Your task to perform on an android device: turn off location Image 0: 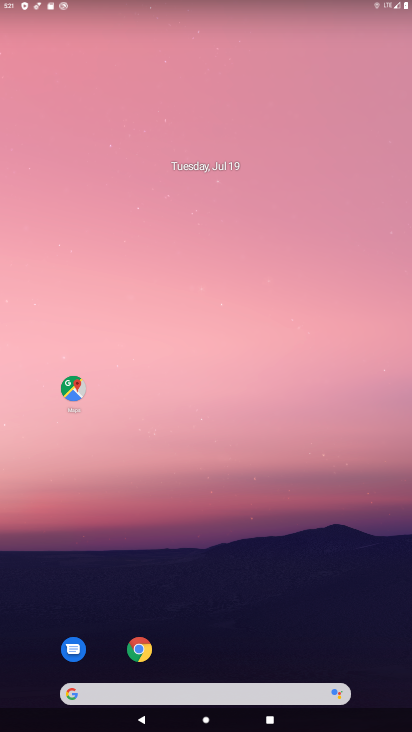
Step 0: drag from (252, 609) to (202, 130)
Your task to perform on an android device: turn off location Image 1: 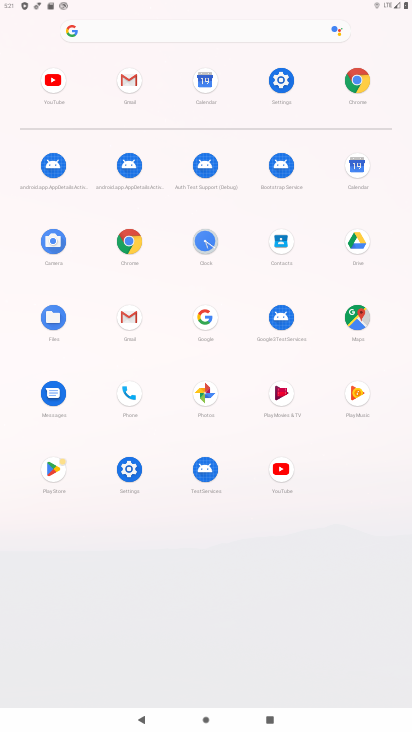
Step 1: click (276, 78)
Your task to perform on an android device: turn off location Image 2: 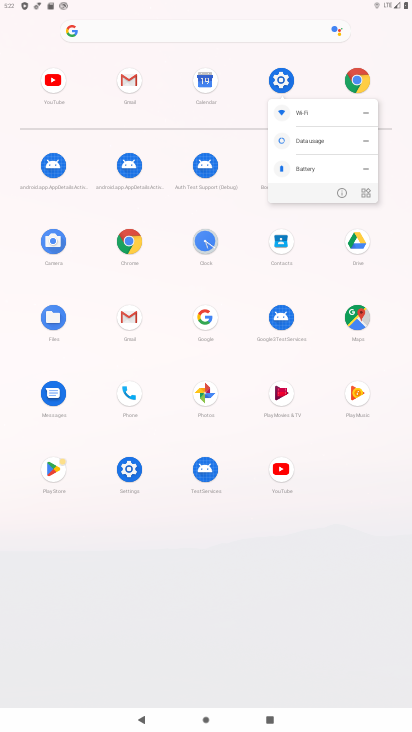
Step 2: click (274, 77)
Your task to perform on an android device: turn off location Image 3: 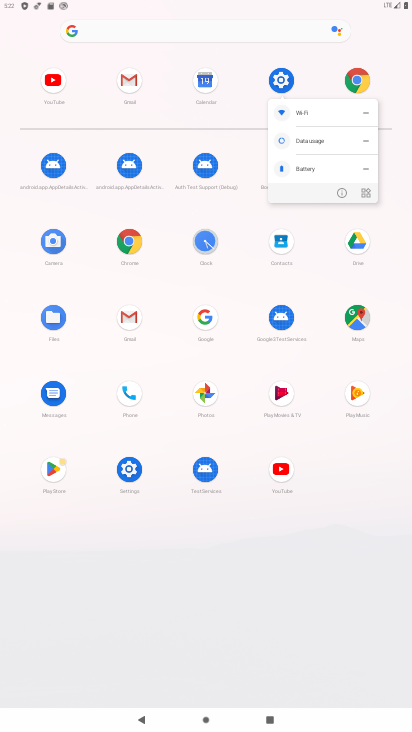
Step 3: click (277, 72)
Your task to perform on an android device: turn off location Image 4: 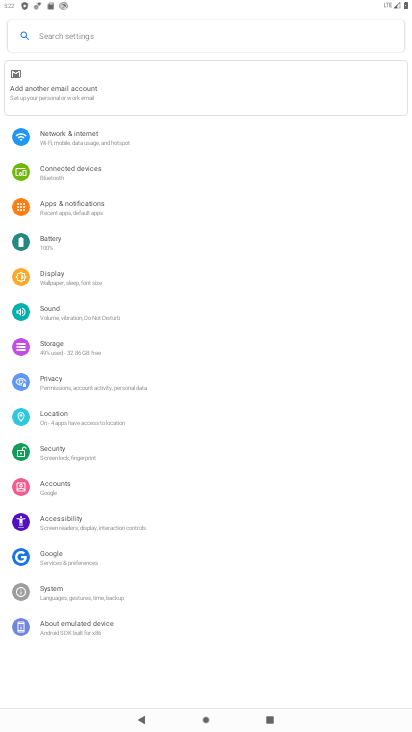
Step 4: click (89, 417)
Your task to perform on an android device: turn off location Image 5: 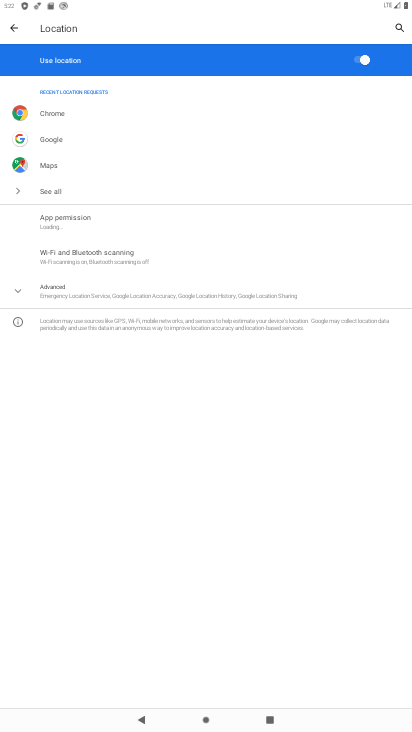
Step 5: click (362, 59)
Your task to perform on an android device: turn off location Image 6: 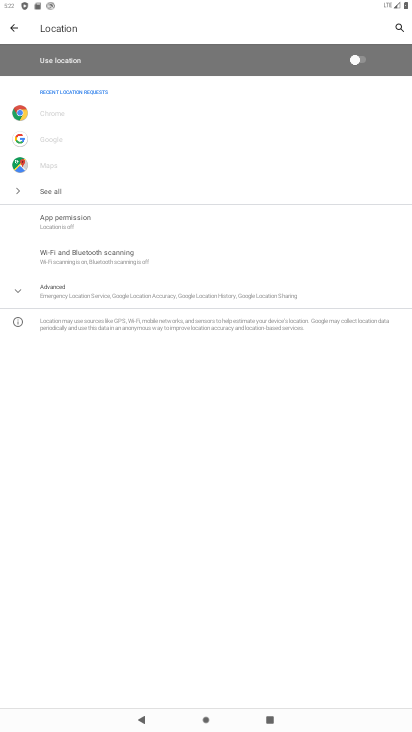
Step 6: task complete